Your task to perform on an android device: Open ESPN.com Image 0: 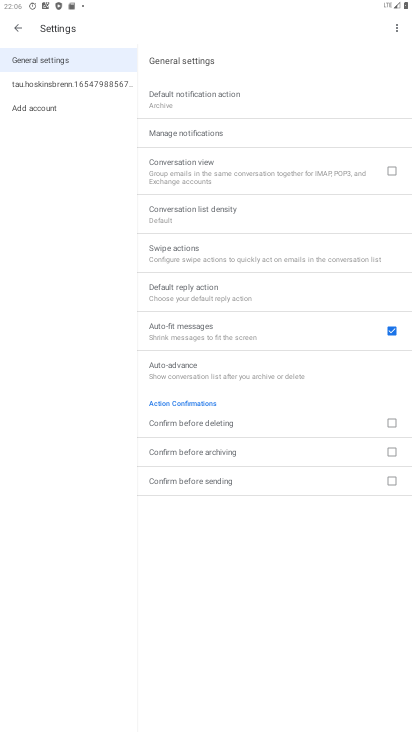
Step 0: press home button
Your task to perform on an android device: Open ESPN.com Image 1: 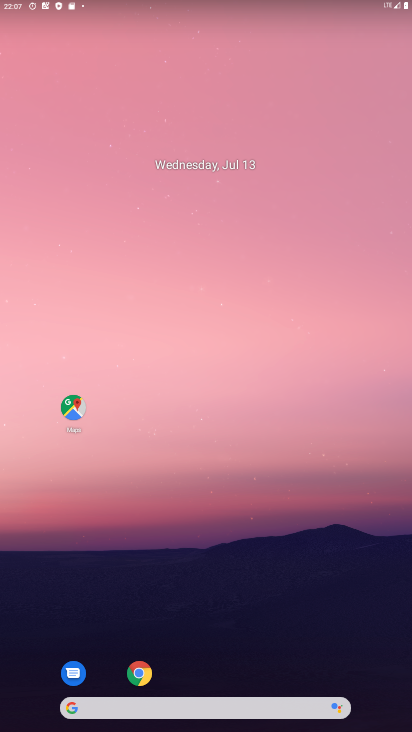
Step 1: drag from (175, 646) to (258, 189)
Your task to perform on an android device: Open ESPN.com Image 2: 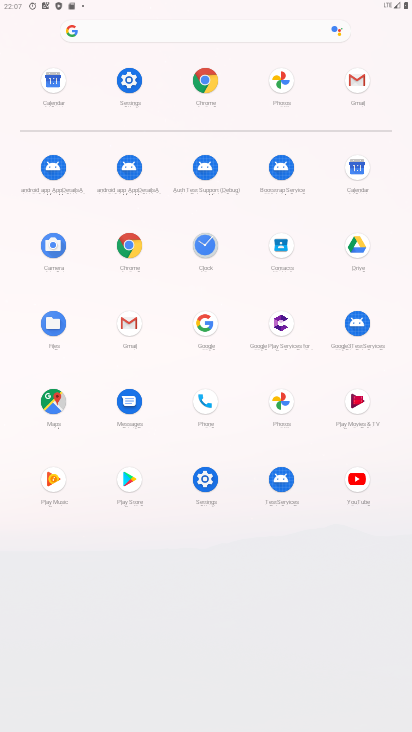
Step 2: click (204, 84)
Your task to perform on an android device: Open ESPN.com Image 3: 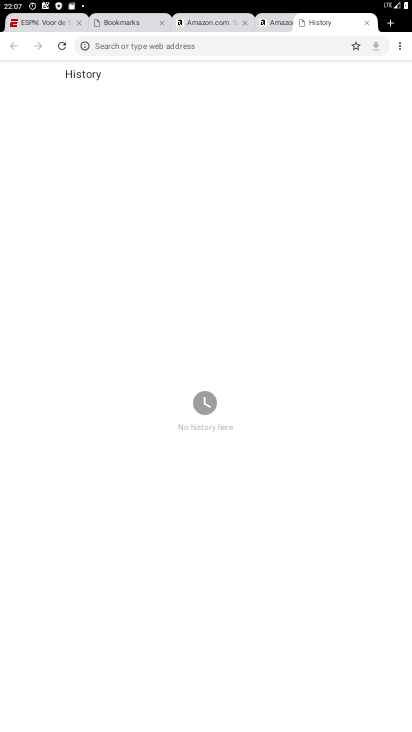
Step 3: click (222, 40)
Your task to perform on an android device: Open ESPN.com Image 4: 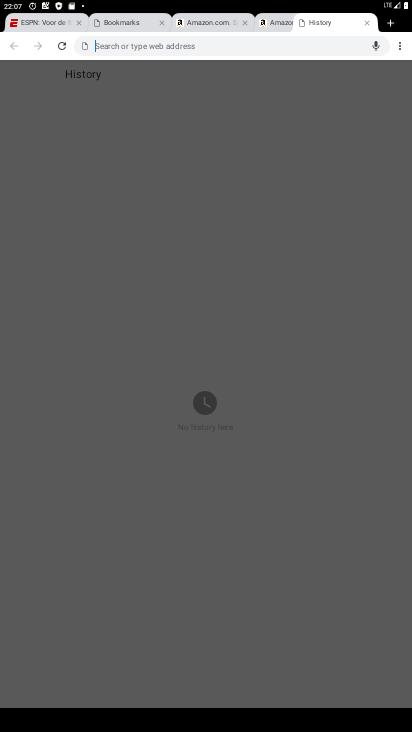
Step 4: type "espn.com"
Your task to perform on an android device: Open ESPN.com Image 5: 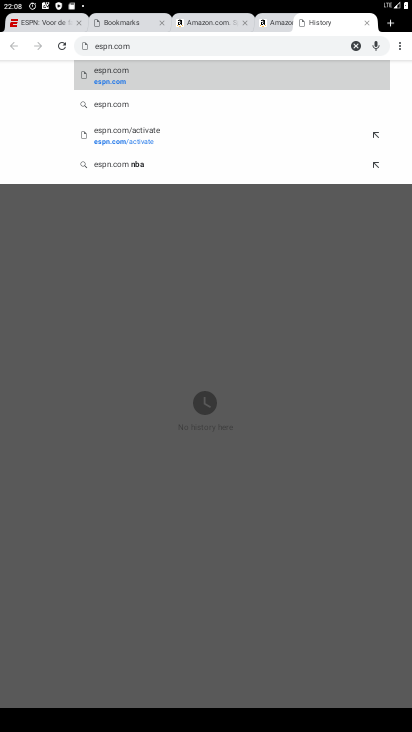
Step 5: click (96, 71)
Your task to perform on an android device: Open ESPN.com Image 6: 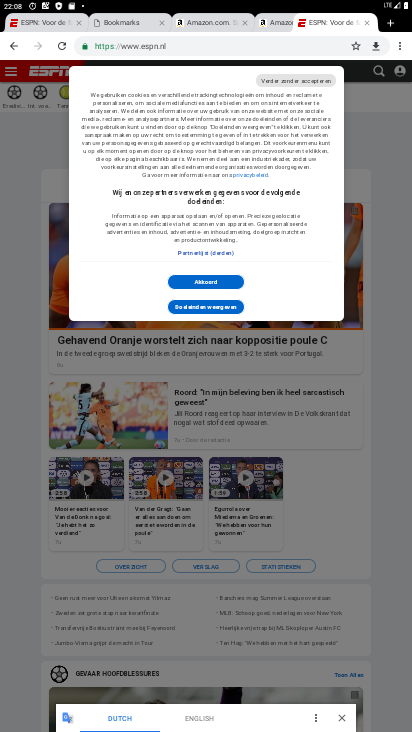
Step 6: task complete